Your task to perform on an android device: see sites visited before in the chrome app Image 0: 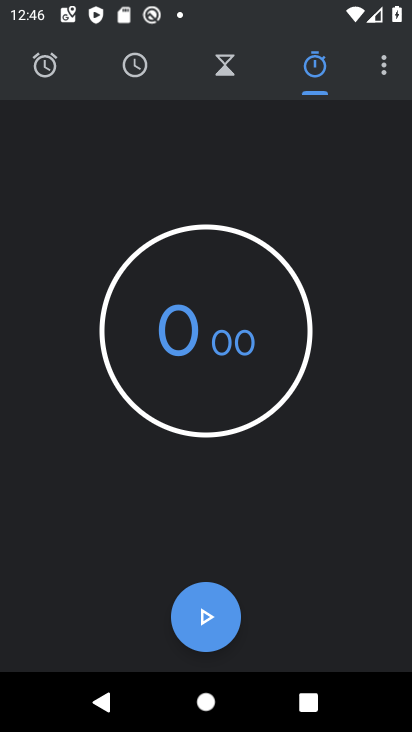
Step 0: press home button
Your task to perform on an android device: see sites visited before in the chrome app Image 1: 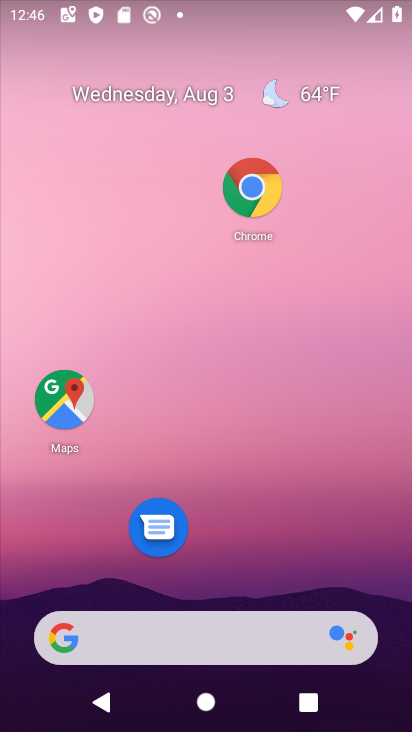
Step 1: click (261, 190)
Your task to perform on an android device: see sites visited before in the chrome app Image 2: 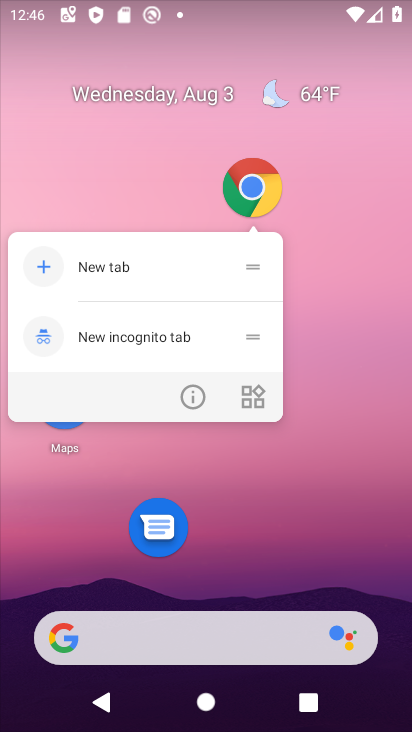
Step 2: click (254, 187)
Your task to perform on an android device: see sites visited before in the chrome app Image 3: 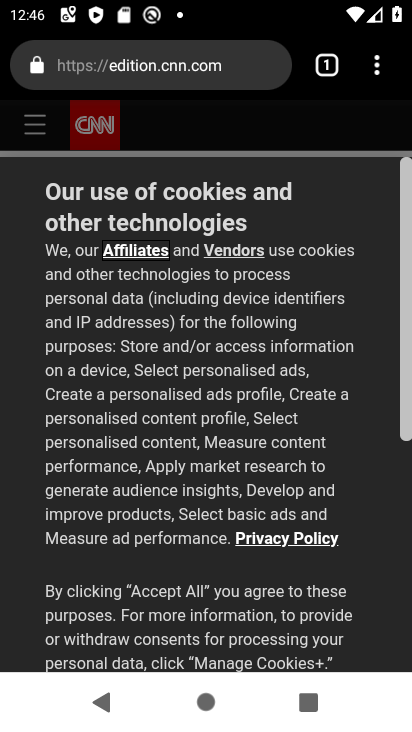
Step 3: click (381, 59)
Your task to perform on an android device: see sites visited before in the chrome app Image 4: 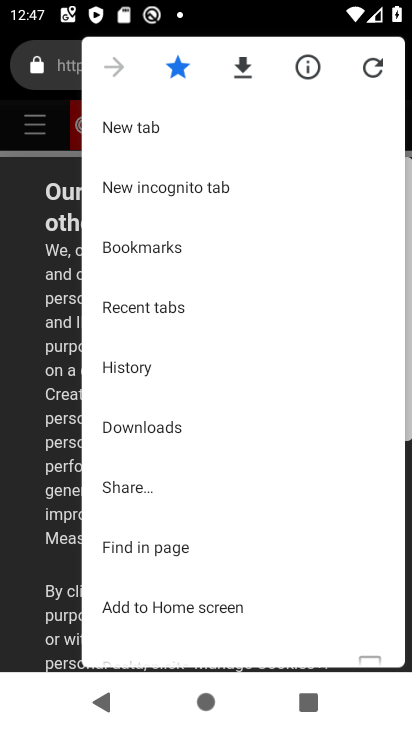
Step 4: click (136, 370)
Your task to perform on an android device: see sites visited before in the chrome app Image 5: 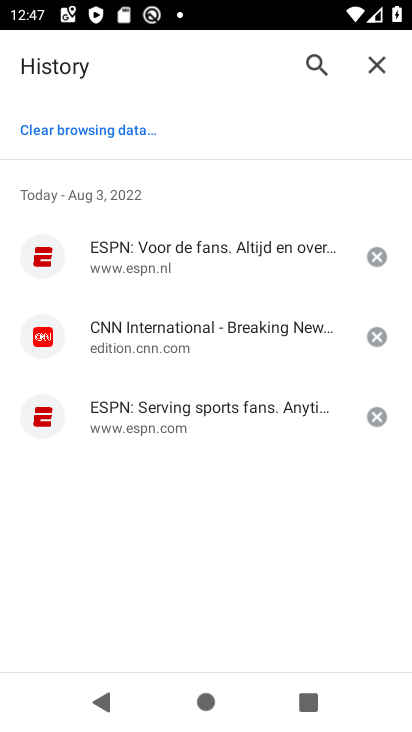
Step 5: task complete